Your task to perform on an android device: turn off notifications settings in the gmail app Image 0: 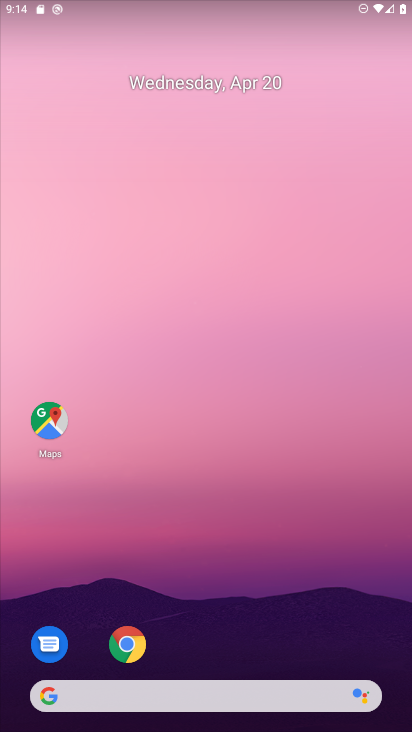
Step 0: drag from (358, 624) to (273, 63)
Your task to perform on an android device: turn off notifications settings in the gmail app Image 1: 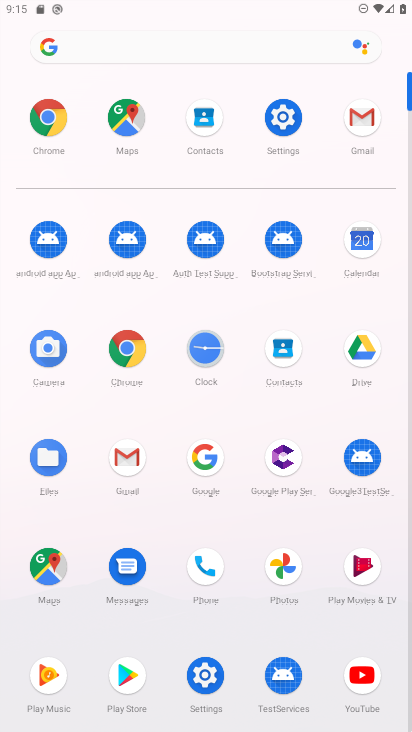
Step 1: click (128, 451)
Your task to perform on an android device: turn off notifications settings in the gmail app Image 2: 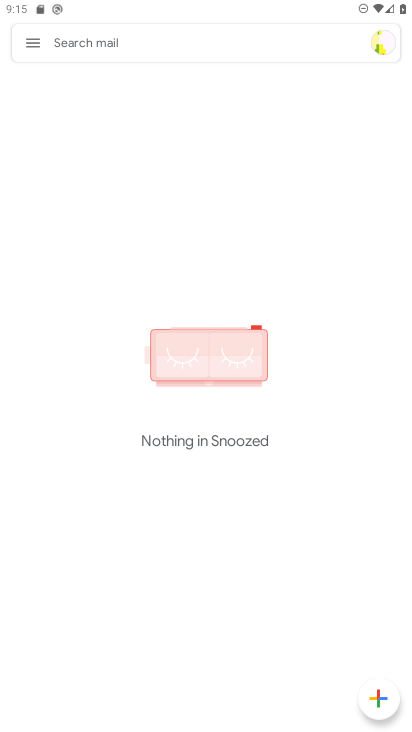
Step 2: click (26, 42)
Your task to perform on an android device: turn off notifications settings in the gmail app Image 3: 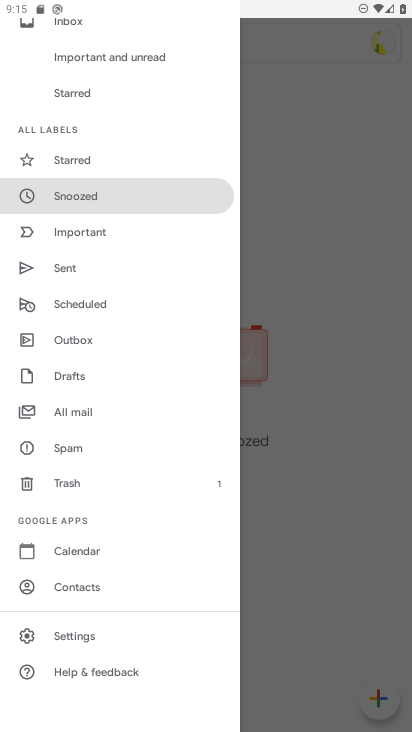
Step 3: click (87, 638)
Your task to perform on an android device: turn off notifications settings in the gmail app Image 4: 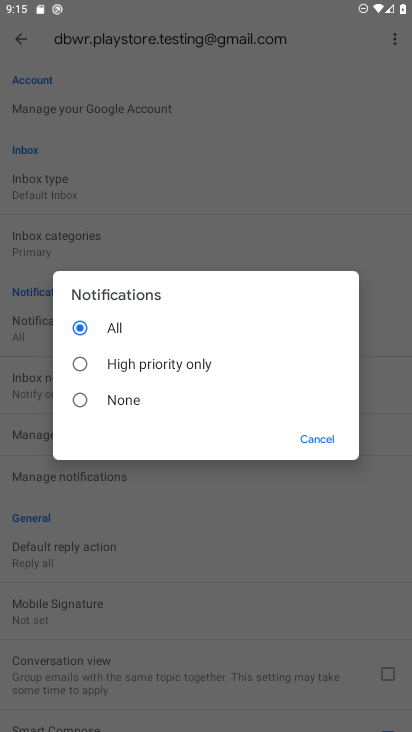
Step 4: click (123, 397)
Your task to perform on an android device: turn off notifications settings in the gmail app Image 5: 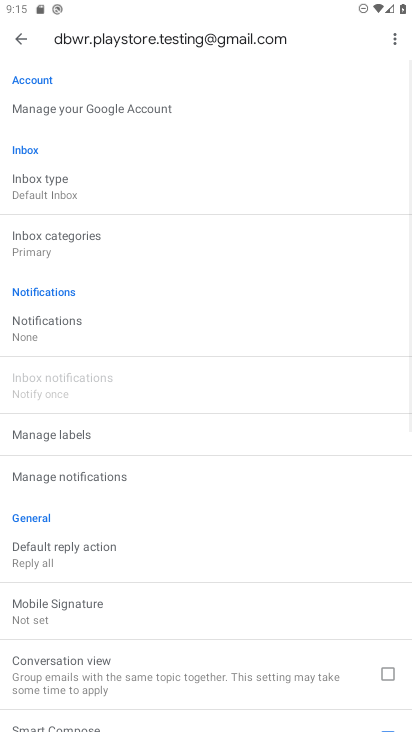
Step 5: task complete